Your task to perform on an android device: turn off data saver in the chrome app Image 0: 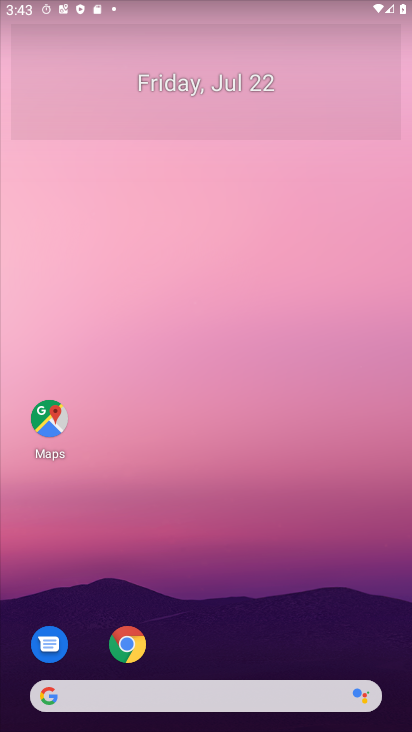
Step 0: drag from (262, 654) to (241, 220)
Your task to perform on an android device: turn off data saver in the chrome app Image 1: 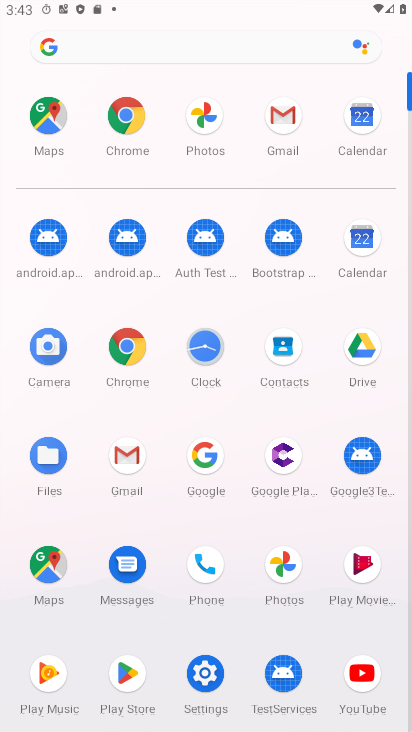
Step 1: click (125, 112)
Your task to perform on an android device: turn off data saver in the chrome app Image 2: 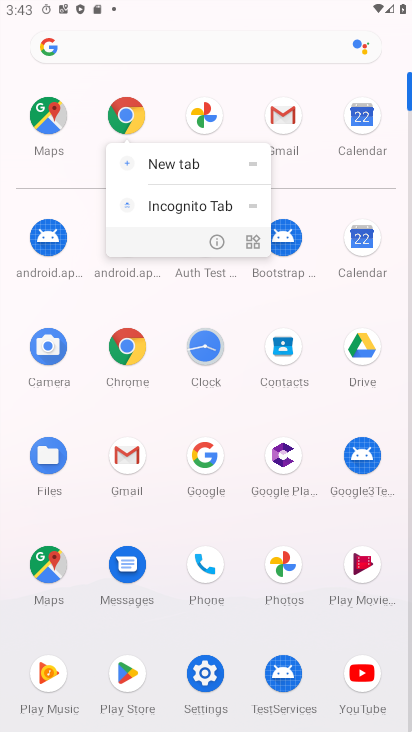
Step 2: click (126, 112)
Your task to perform on an android device: turn off data saver in the chrome app Image 3: 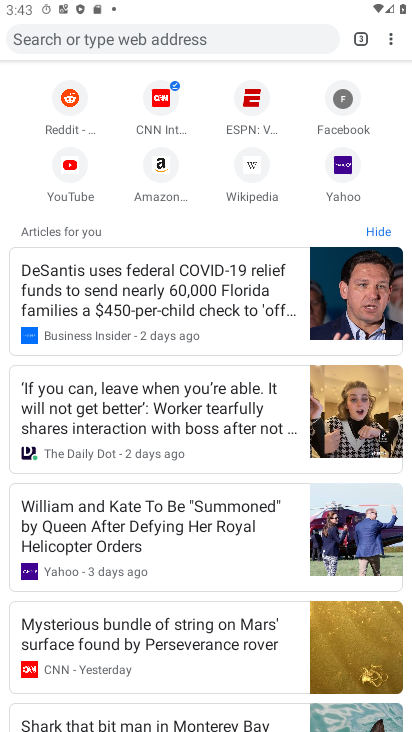
Step 3: drag from (402, 33) to (257, 373)
Your task to perform on an android device: turn off data saver in the chrome app Image 4: 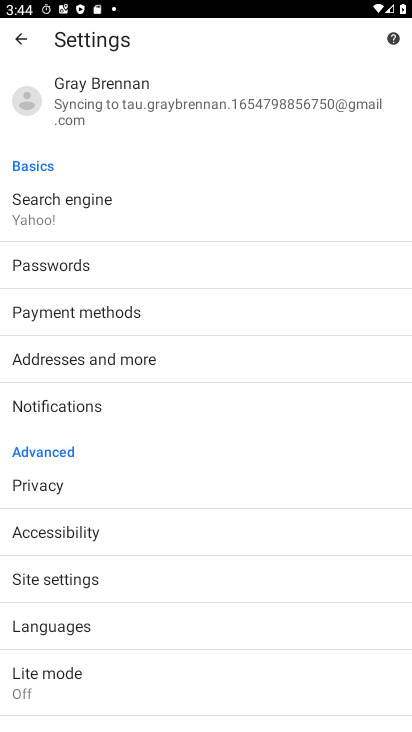
Step 4: click (49, 678)
Your task to perform on an android device: turn off data saver in the chrome app Image 5: 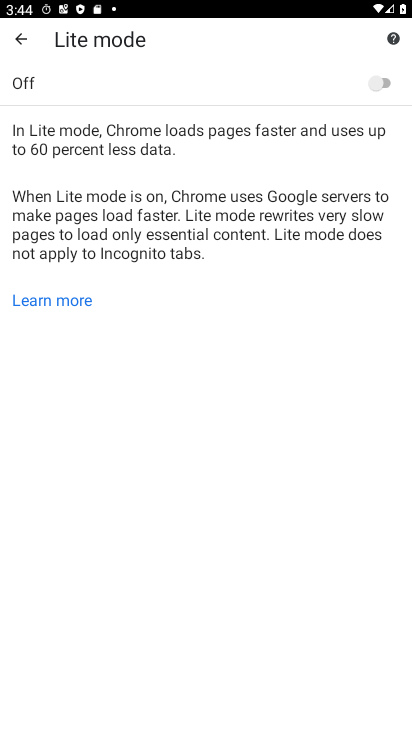
Step 5: task complete